Your task to perform on an android device: Go to location settings Image 0: 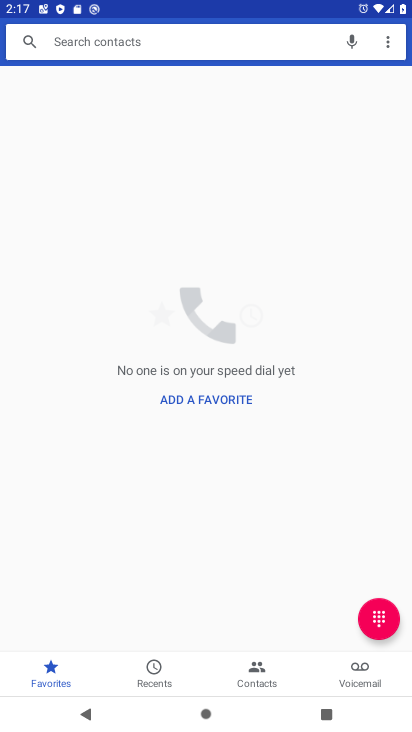
Step 0: press home button
Your task to perform on an android device: Go to location settings Image 1: 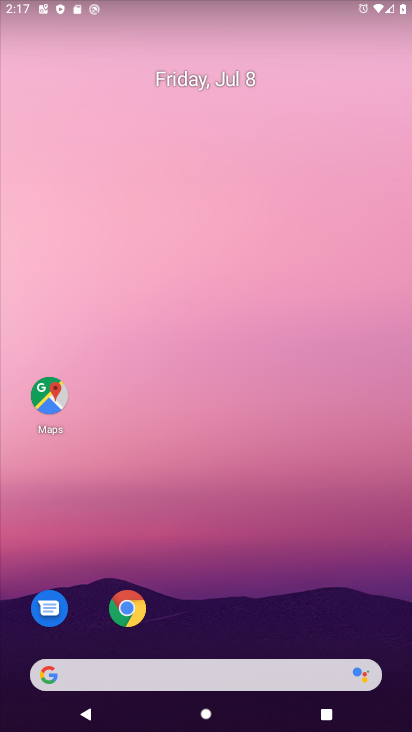
Step 1: click (216, 56)
Your task to perform on an android device: Go to location settings Image 2: 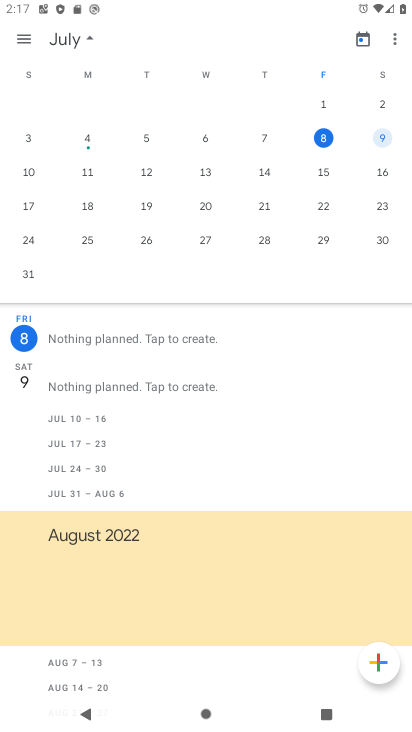
Step 2: drag from (178, 11) to (183, 712)
Your task to perform on an android device: Go to location settings Image 3: 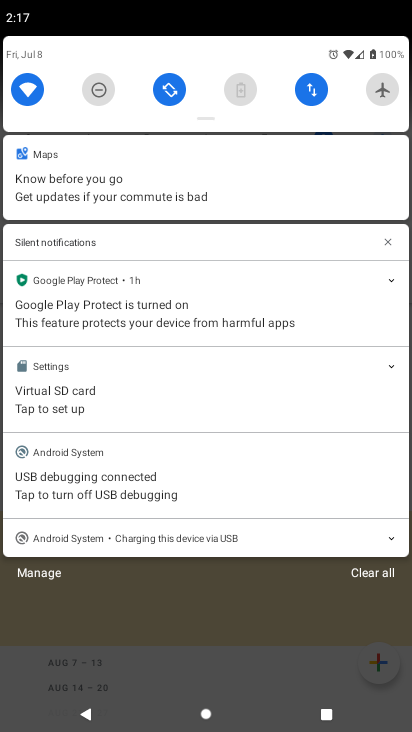
Step 3: drag from (188, 49) to (228, 621)
Your task to perform on an android device: Go to location settings Image 4: 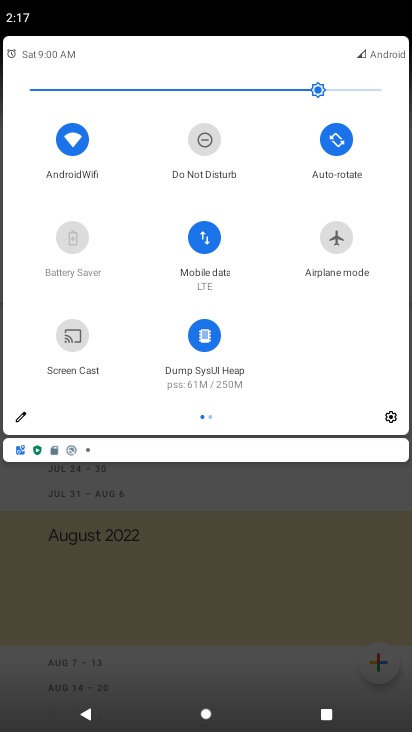
Step 4: click (385, 419)
Your task to perform on an android device: Go to location settings Image 5: 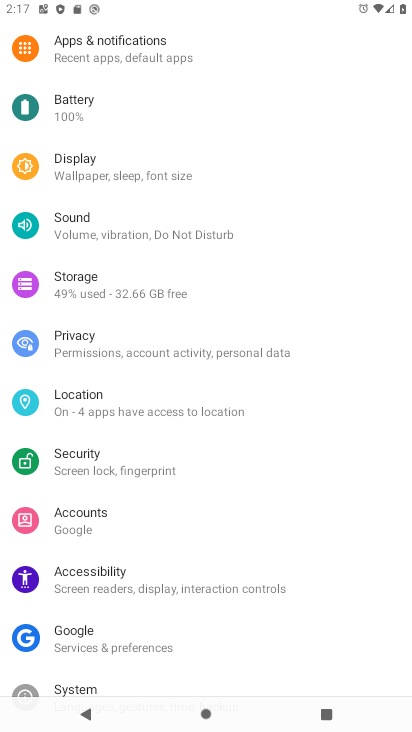
Step 5: click (231, 412)
Your task to perform on an android device: Go to location settings Image 6: 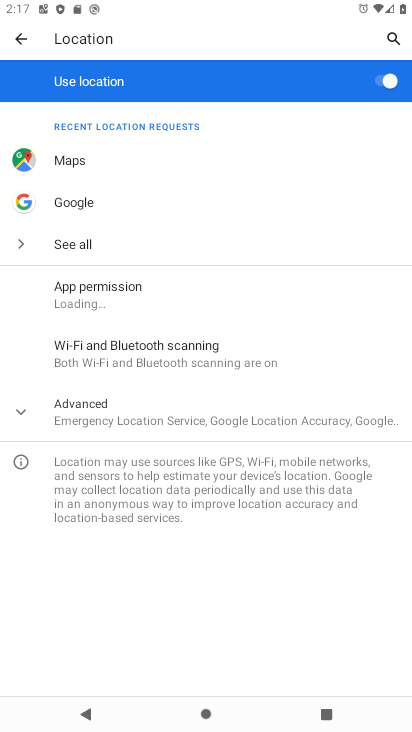
Step 6: task complete